Your task to perform on an android device: Open Chrome and go to settings Image 0: 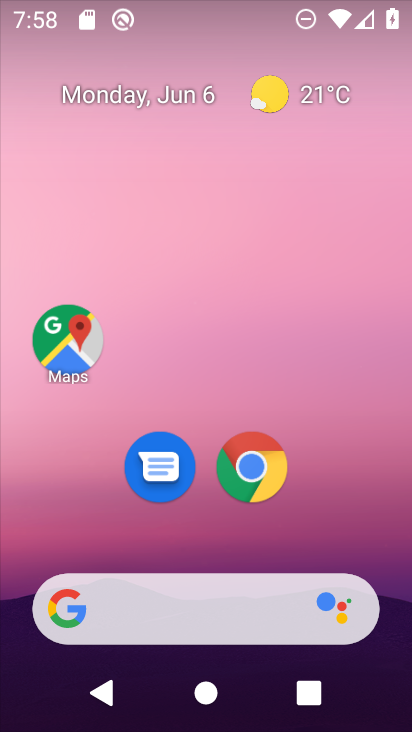
Step 0: drag from (353, 523) to (330, 223)
Your task to perform on an android device: Open Chrome and go to settings Image 1: 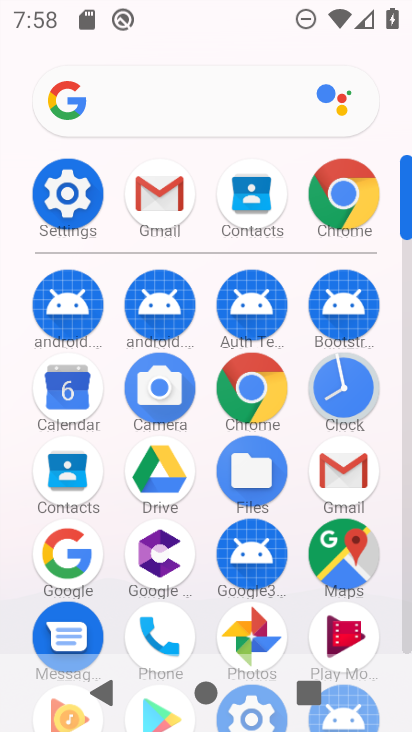
Step 1: click (273, 392)
Your task to perform on an android device: Open Chrome and go to settings Image 2: 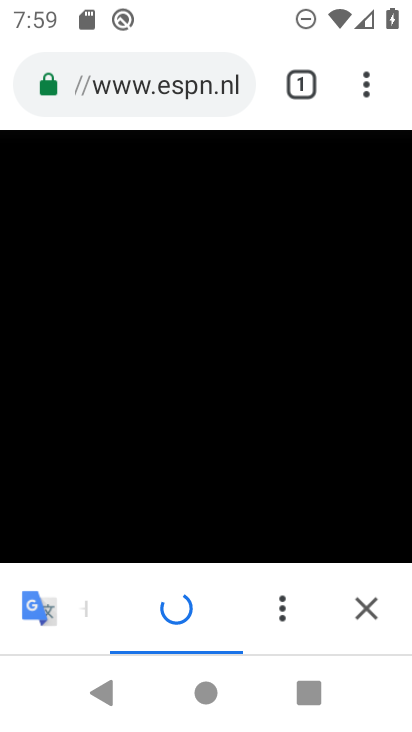
Step 2: click (363, 90)
Your task to perform on an android device: Open Chrome and go to settings Image 3: 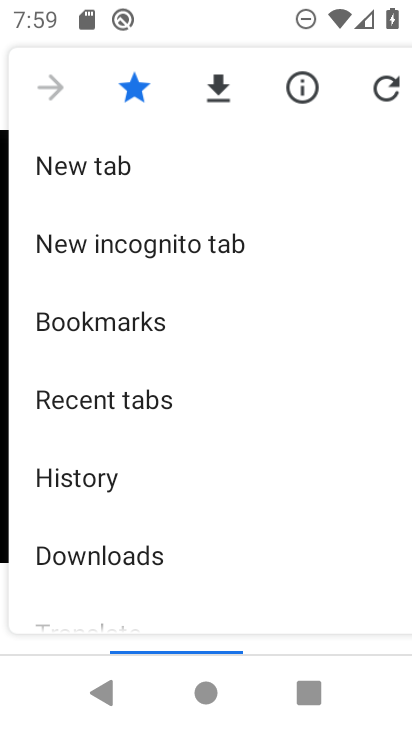
Step 3: drag from (327, 330) to (334, 246)
Your task to perform on an android device: Open Chrome and go to settings Image 4: 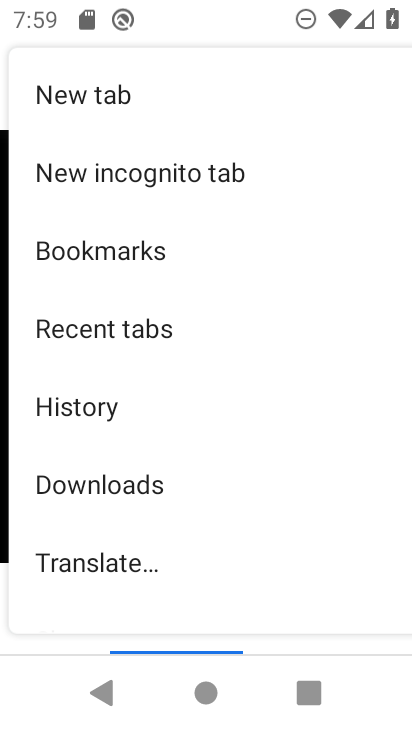
Step 4: drag from (314, 372) to (329, 311)
Your task to perform on an android device: Open Chrome and go to settings Image 5: 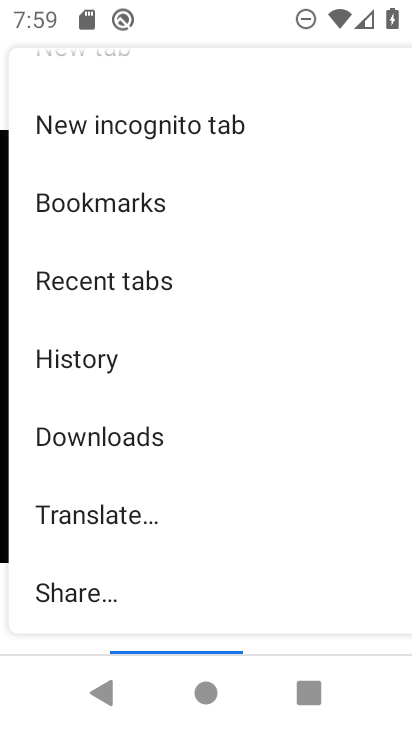
Step 5: drag from (330, 386) to (312, 264)
Your task to perform on an android device: Open Chrome and go to settings Image 6: 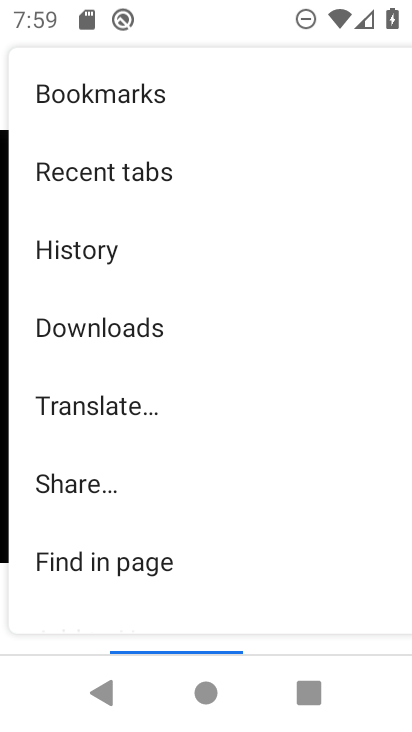
Step 6: drag from (316, 417) to (358, 230)
Your task to perform on an android device: Open Chrome and go to settings Image 7: 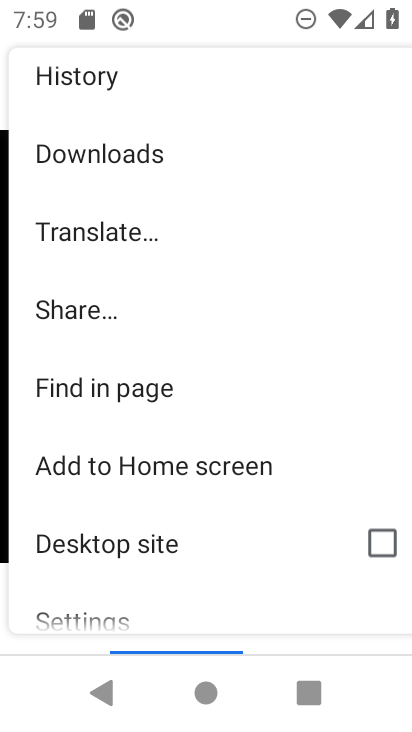
Step 7: drag from (338, 421) to (334, 234)
Your task to perform on an android device: Open Chrome and go to settings Image 8: 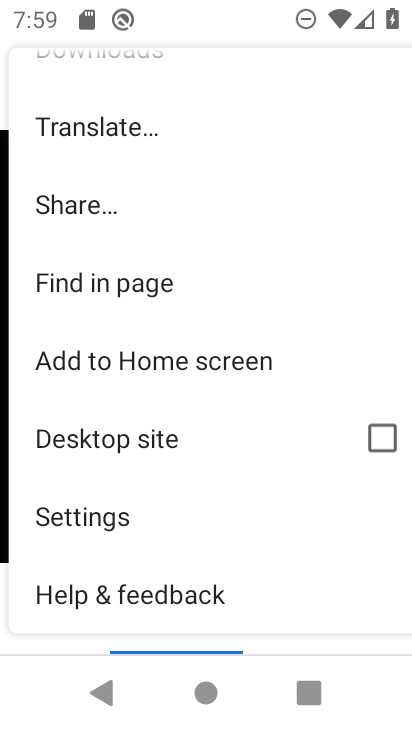
Step 8: click (150, 525)
Your task to perform on an android device: Open Chrome and go to settings Image 9: 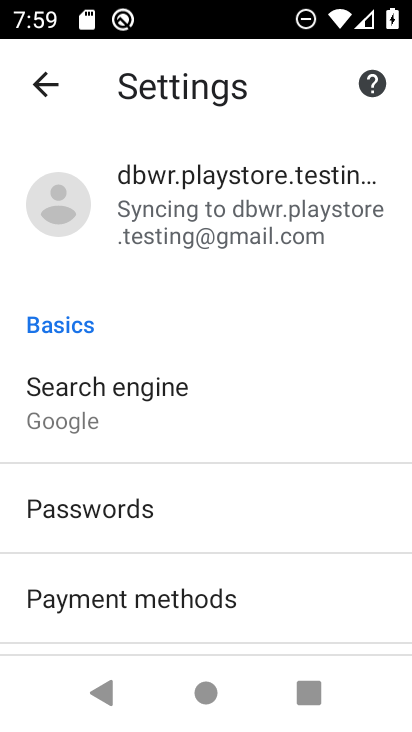
Step 9: task complete